Your task to perform on an android device: install app "Pluto TV - Live TV and Movies" Image 0: 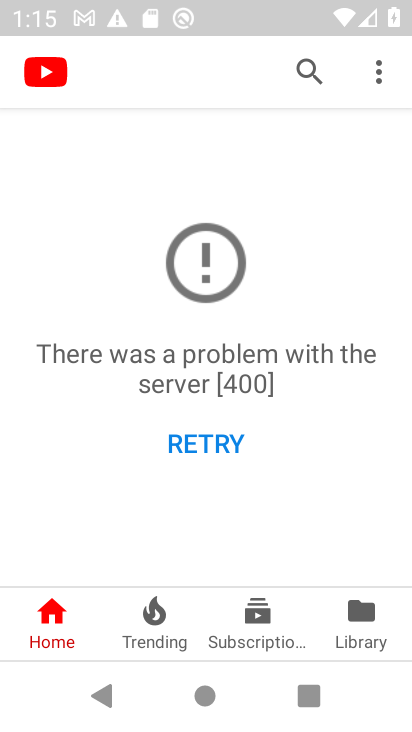
Step 0: task complete